Your task to perform on an android device: turn off notifications settings in the gmail app Image 0: 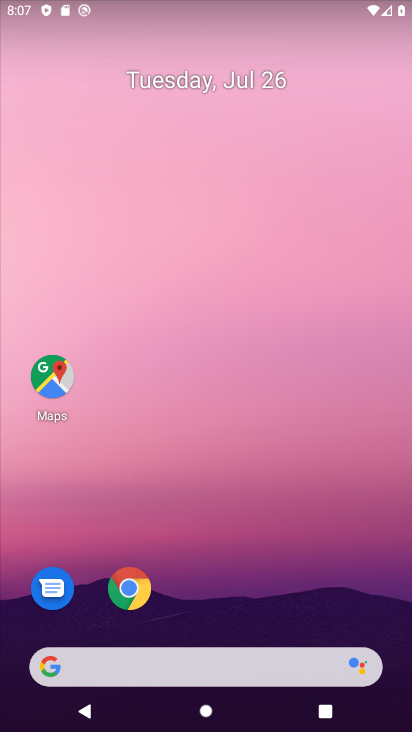
Step 0: drag from (189, 641) to (256, 58)
Your task to perform on an android device: turn off notifications settings in the gmail app Image 1: 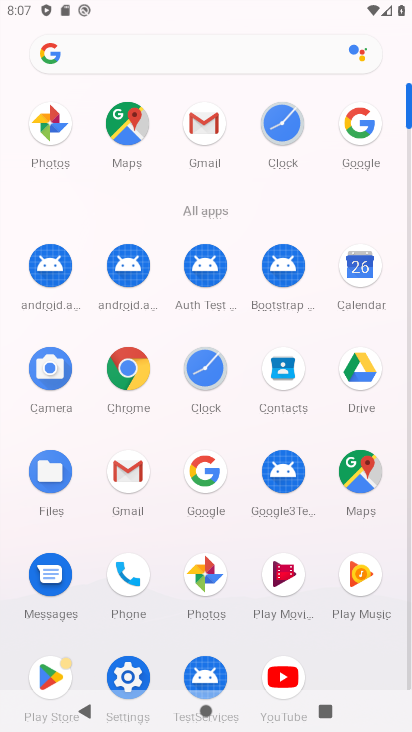
Step 1: click (121, 479)
Your task to perform on an android device: turn off notifications settings in the gmail app Image 2: 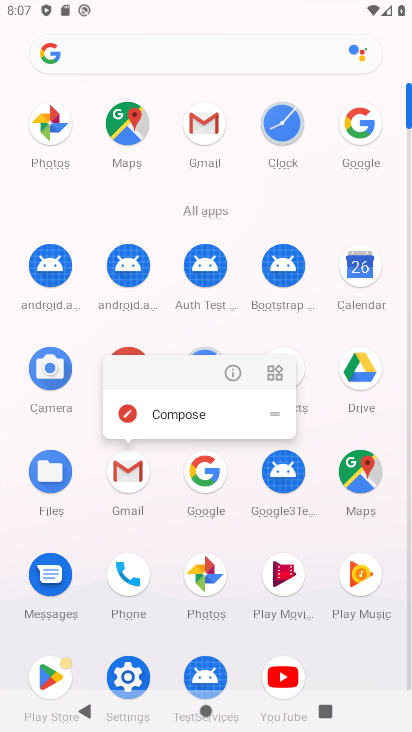
Step 2: click (232, 370)
Your task to perform on an android device: turn off notifications settings in the gmail app Image 3: 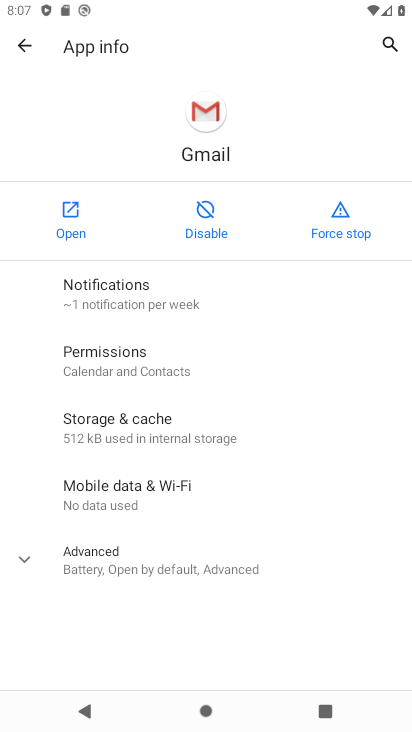
Step 3: click (86, 219)
Your task to perform on an android device: turn off notifications settings in the gmail app Image 4: 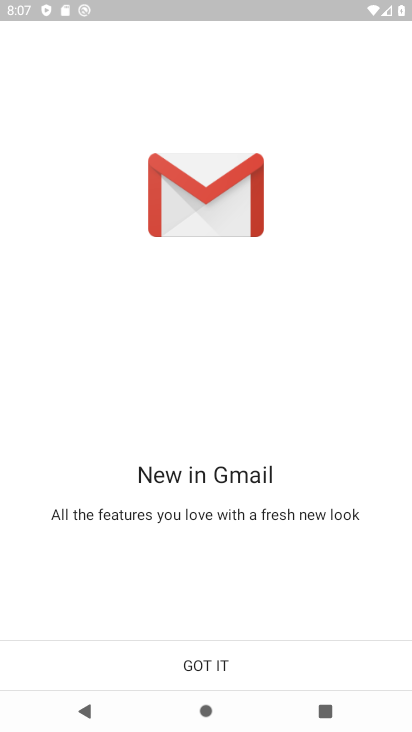
Step 4: click (174, 668)
Your task to perform on an android device: turn off notifications settings in the gmail app Image 5: 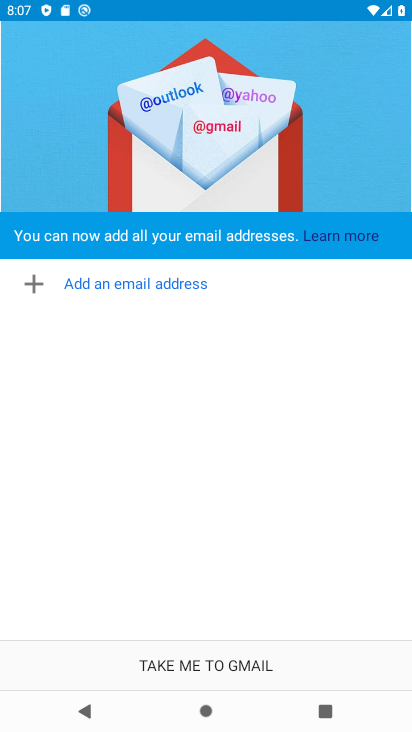
Step 5: click (172, 659)
Your task to perform on an android device: turn off notifications settings in the gmail app Image 6: 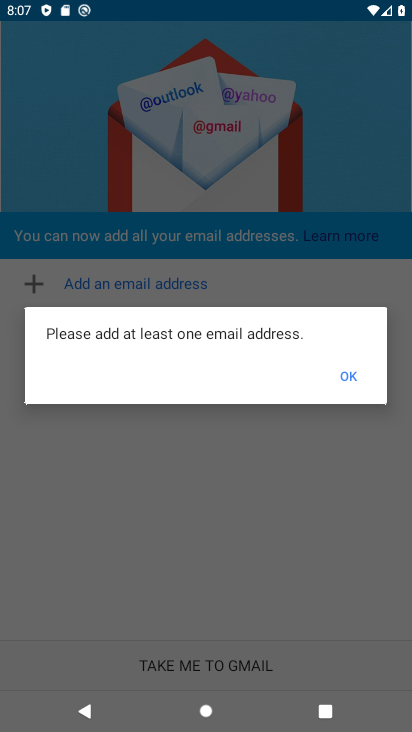
Step 6: click (354, 375)
Your task to perform on an android device: turn off notifications settings in the gmail app Image 7: 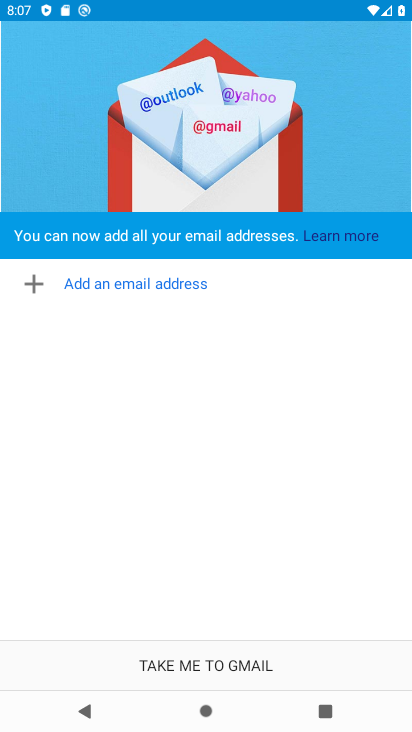
Step 7: task complete